Your task to perform on an android device: Go to ESPN.com Image 0: 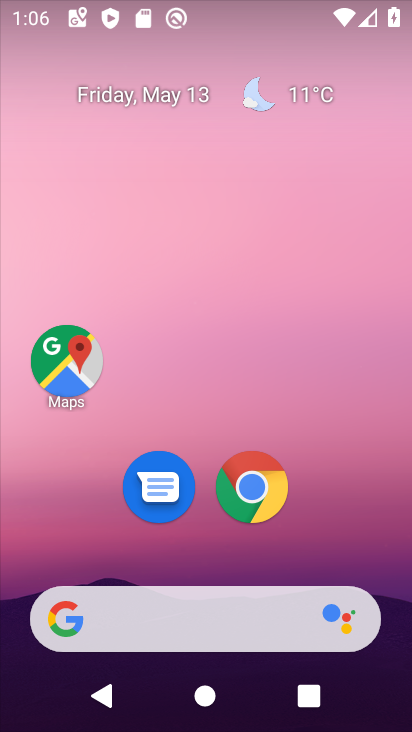
Step 0: click (271, 511)
Your task to perform on an android device: Go to ESPN.com Image 1: 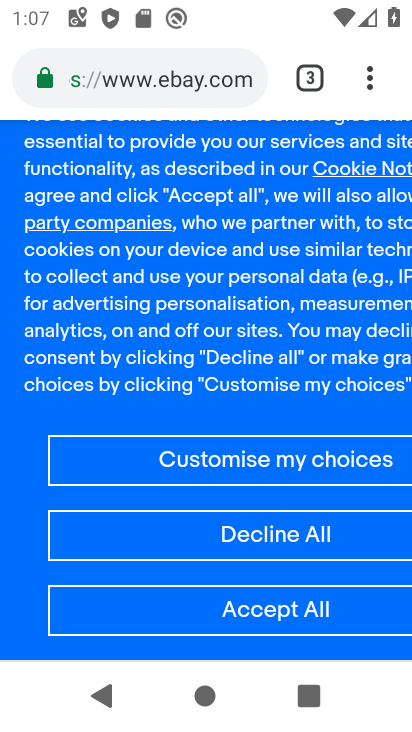
Step 1: press home button
Your task to perform on an android device: Go to ESPN.com Image 2: 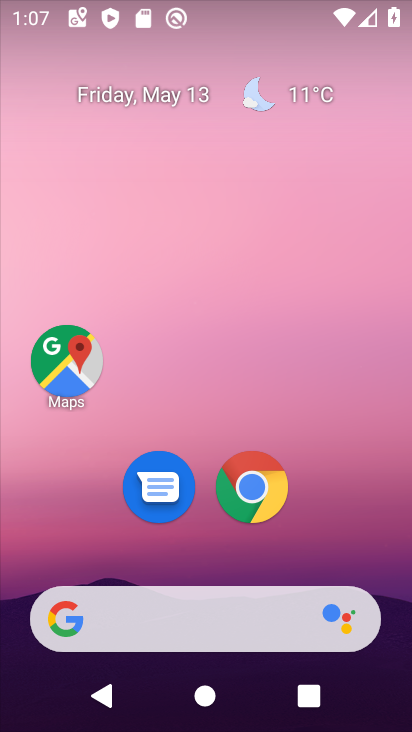
Step 2: click (252, 489)
Your task to perform on an android device: Go to ESPN.com Image 3: 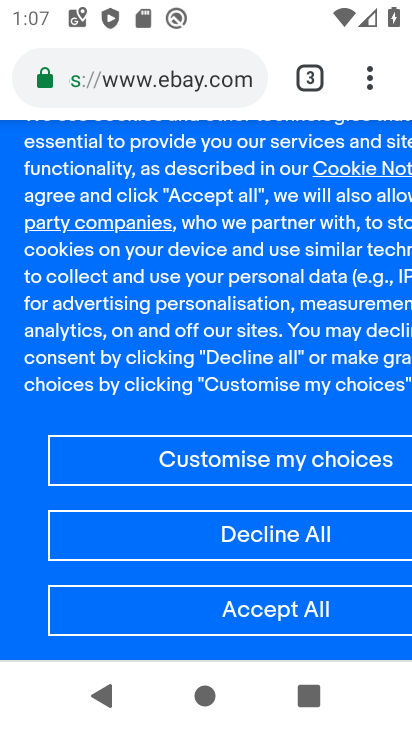
Step 3: click (202, 77)
Your task to perform on an android device: Go to ESPN.com Image 4: 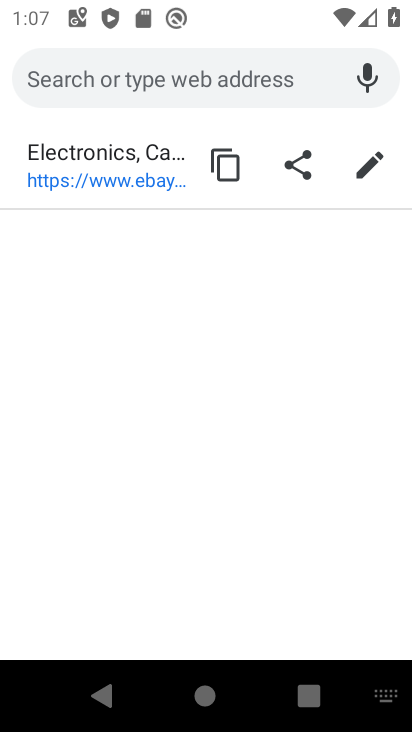
Step 4: type "ESPn.com"
Your task to perform on an android device: Go to ESPN.com Image 5: 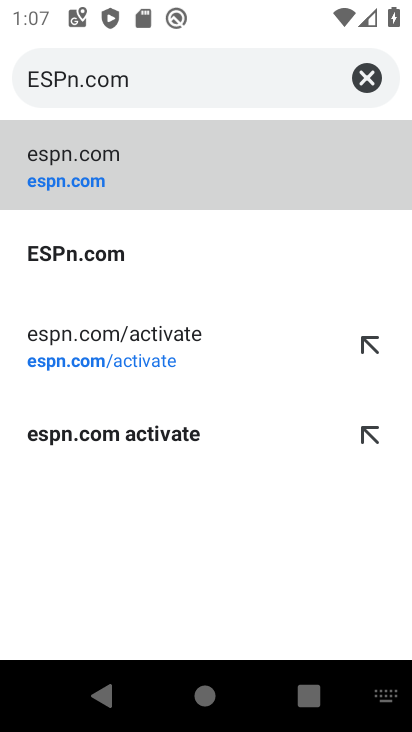
Step 5: click (80, 182)
Your task to perform on an android device: Go to ESPN.com Image 6: 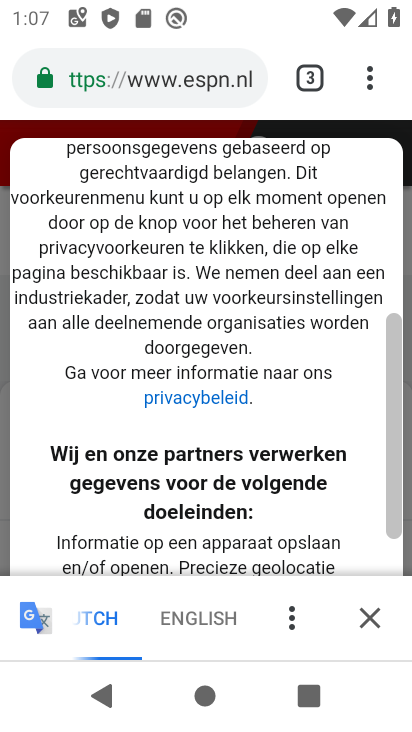
Step 6: task complete